Your task to perform on an android device: uninstall "YouTube Kids" Image 0: 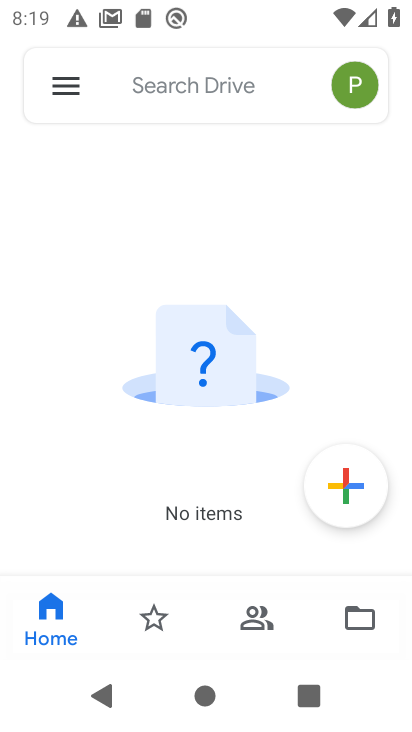
Step 0: press home button
Your task to perform on an android device: uninstall "YouTube Kids" Image 1: 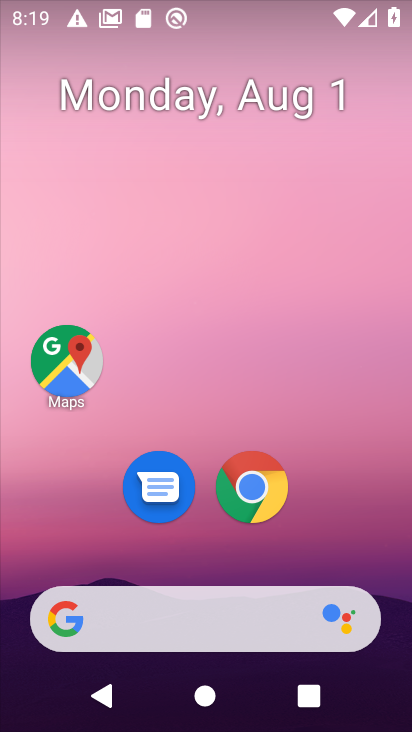
Step 1: drag from (363, 527) to (323, 53)
Your task to perform on an android device: uninstall "YouTube Kids" Image 2: 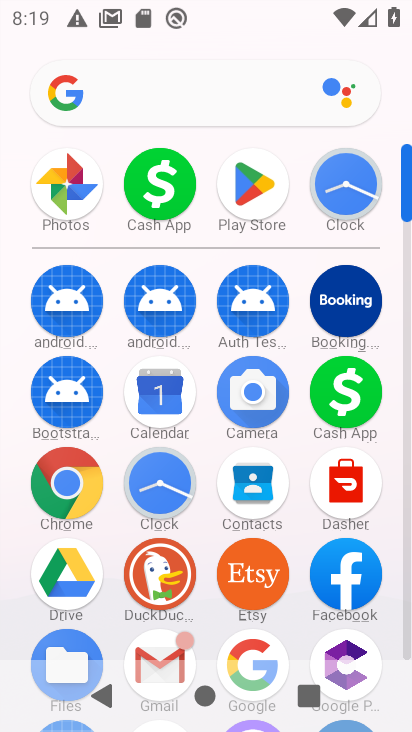
Step 2: click (260, 189)
Your task to perform on an android device: uninstall "YouTube Kids" Image 3: 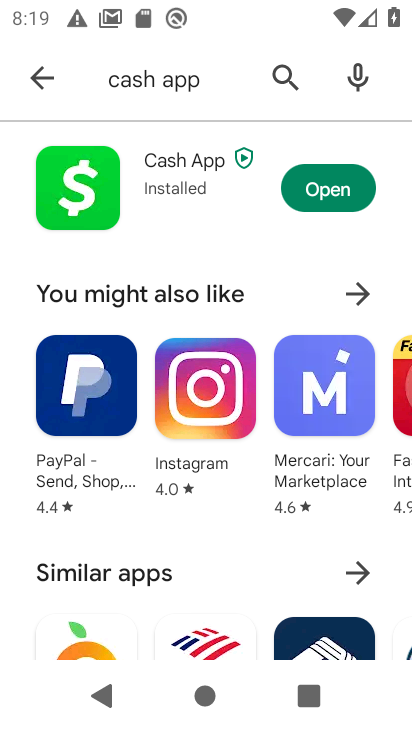
Step 3: click (288, 74)
Your task to perform on an android device: uninstall "YouTube Kids" Image 4: 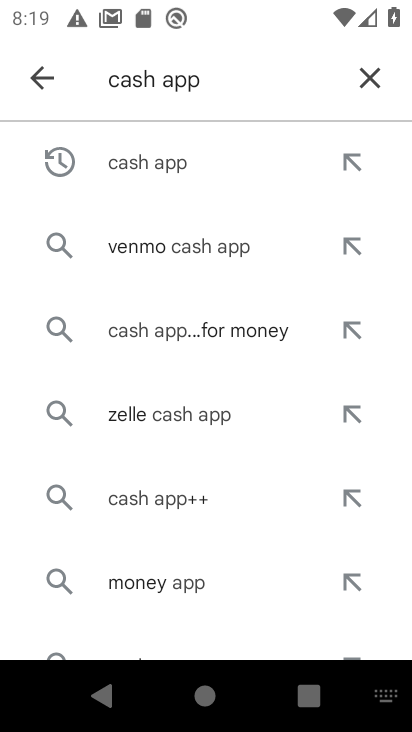
Step 4: click (362, 71)
Your task to perform on an android device: uninstall "YouTube Kids" Image 5: 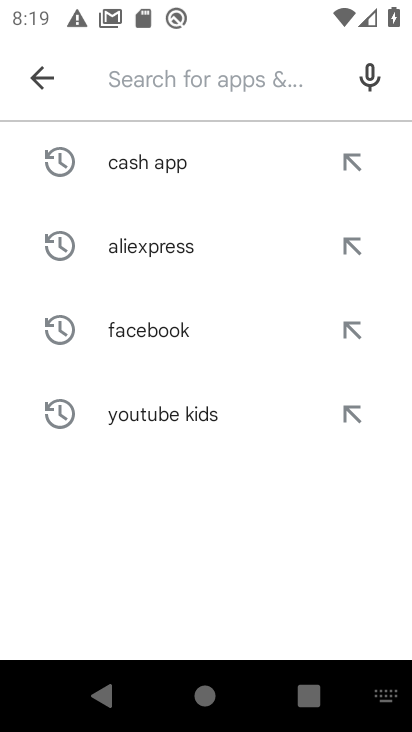
Step 5: type "youtube kids"
Your task to perform on an android device: uninstall "YouTube Kids" Image 6: 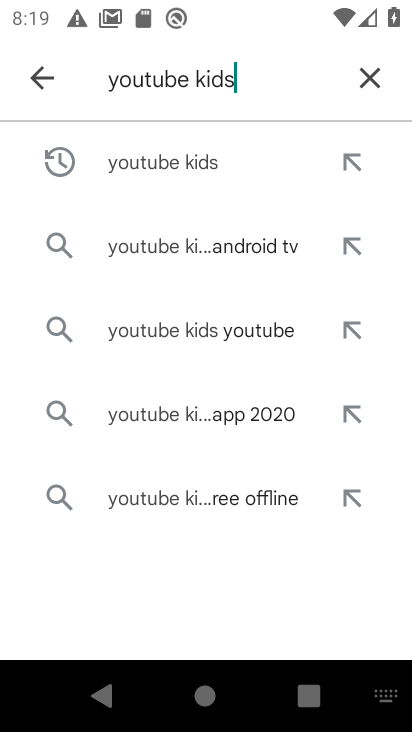
Step 6: click (231, 167)
Your task to perform on an android device: uninstall "YouTube Kids" Image 7: 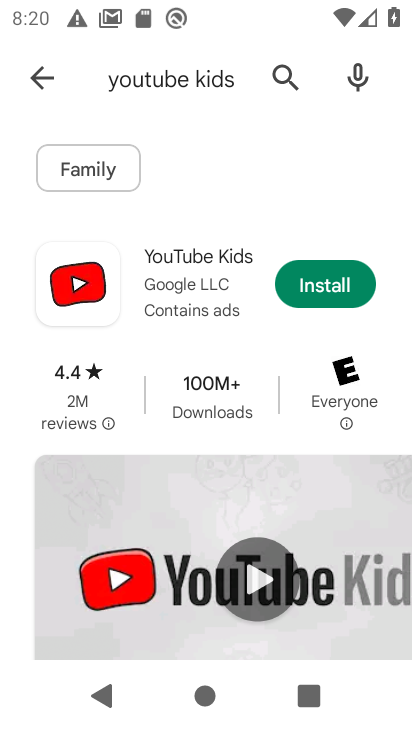
Step 7: task complete